Your task to perform on an android device: uninstall "Indeed Job Search" Image 0: 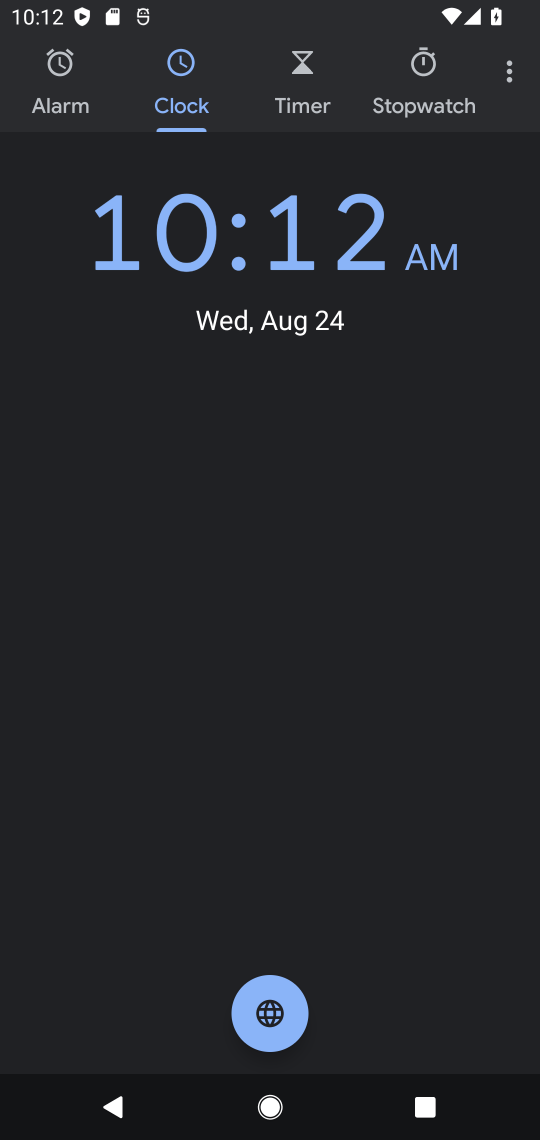
Step 0: press home button
Your task to perform on an android device: uninstall "Indeed Job Search" Image 1: 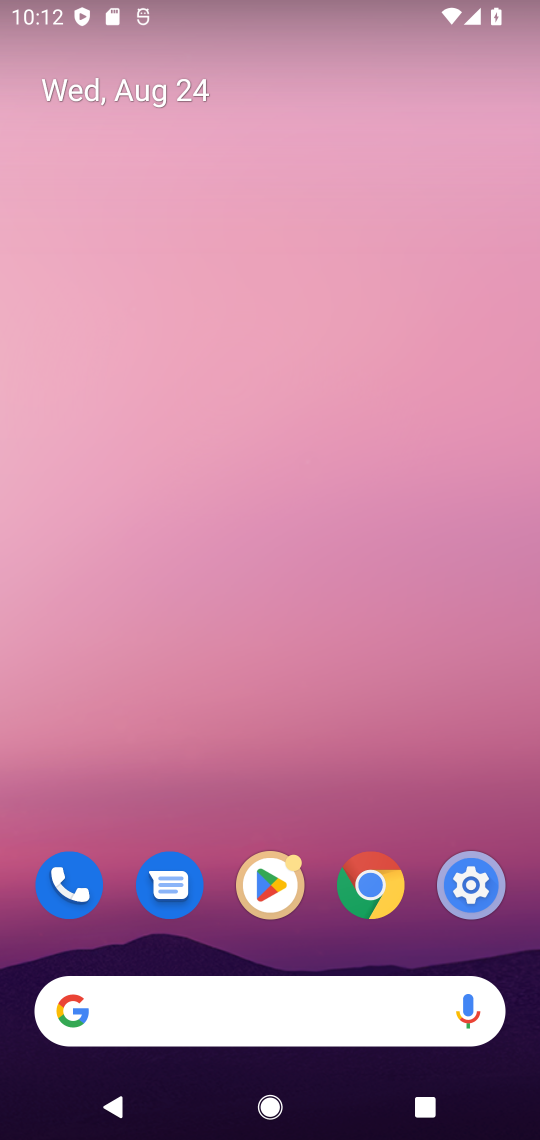
Step 1: click (262, 877)
Your task to perform on an android device: uninstall "Indeed Job Search" Image 2: 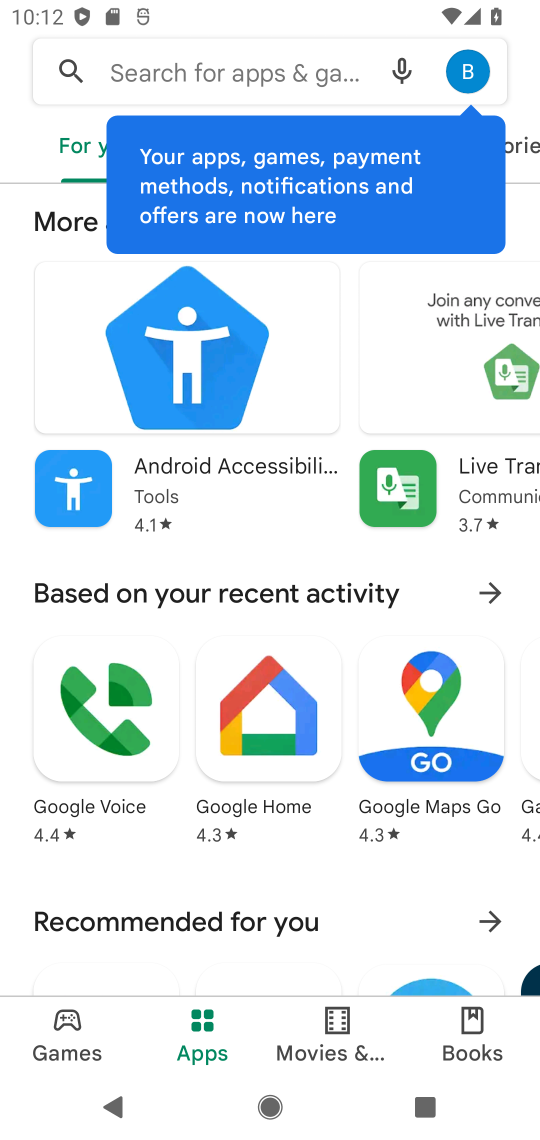
Step 2: click (178, 61)
Your task to perform on an android device: uninstall "Indeed Job Search" Image 3: 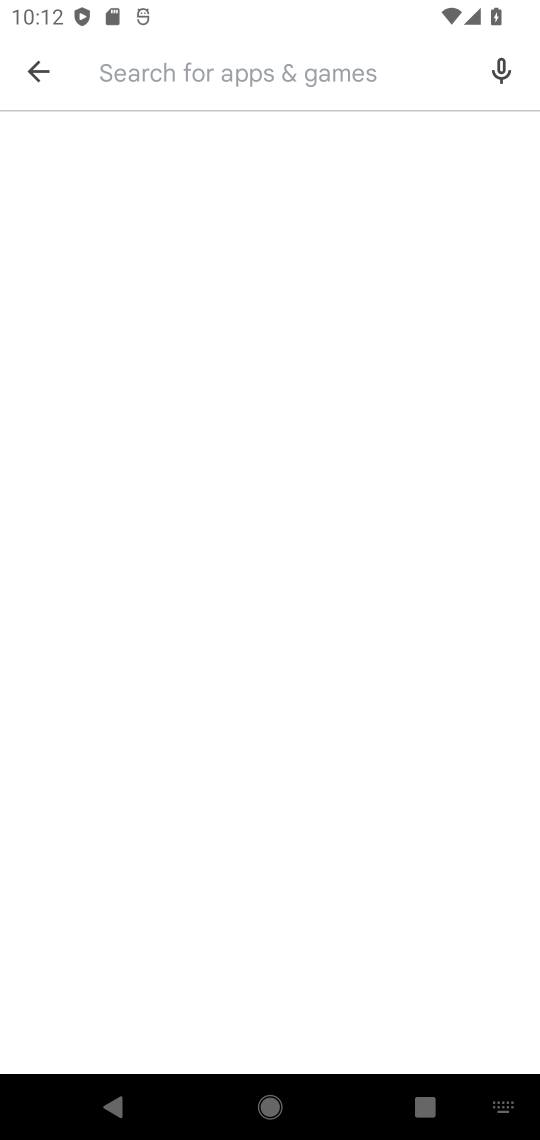
Step 3: type "Indeed Job Search"
Your task to perform on an android device: uninstall "Indeed Job Search" Image 4: 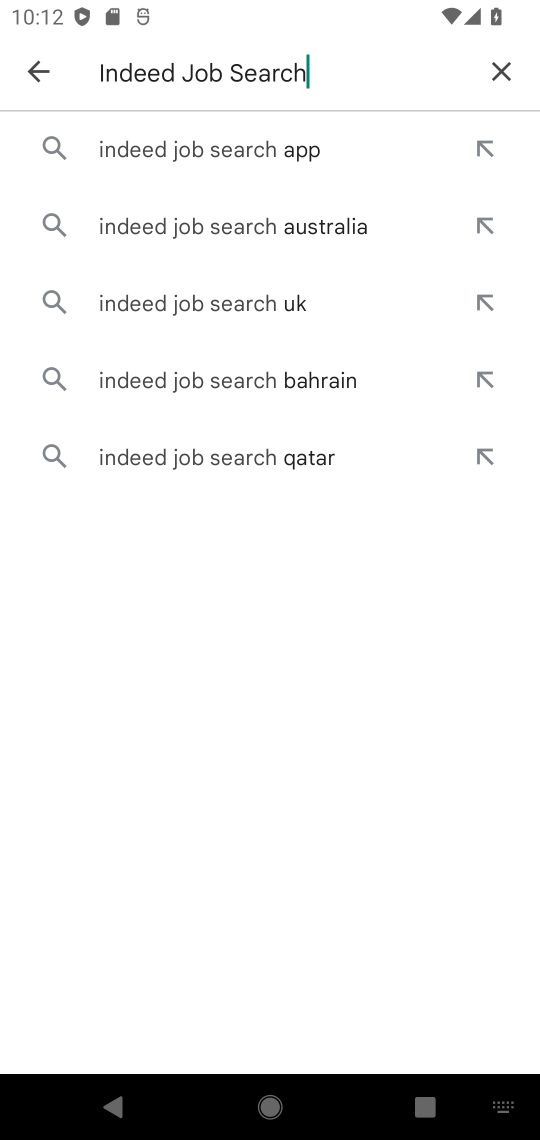
Step 4: click (282, 146)
Your task to perform on an android device: uninstall "Indeed Job Search" Image 5: 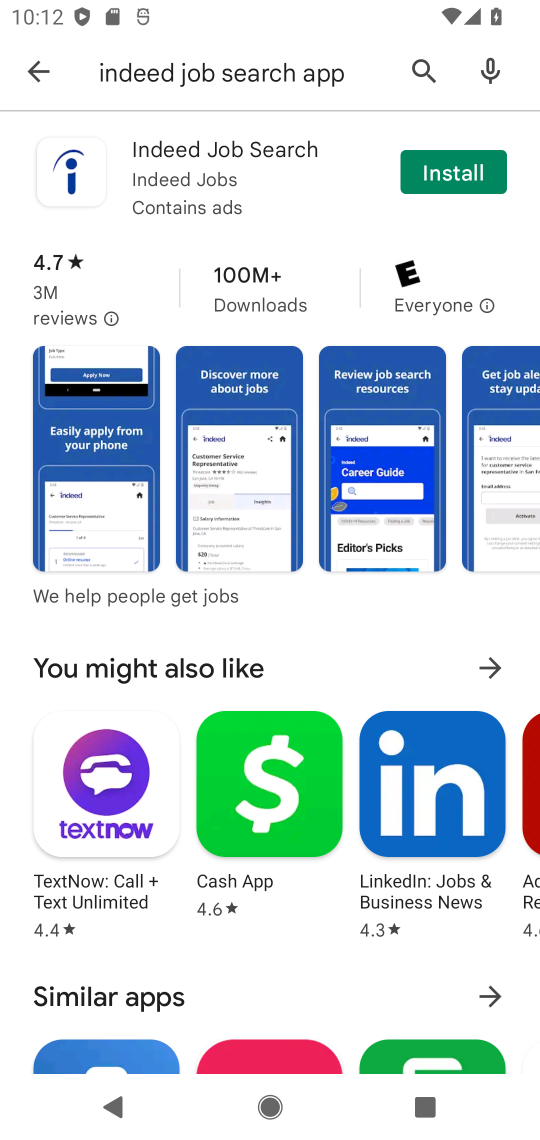
Step 5: task complete